Your task to perform on an android device: Check the weather Image 0: 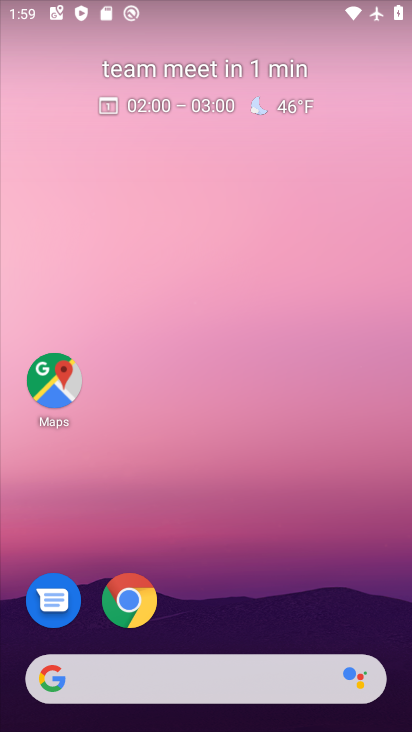
Step 0: drag from (177, 642) to (147, 115)
Your task to perform on an android device: Check the weather Image 1: 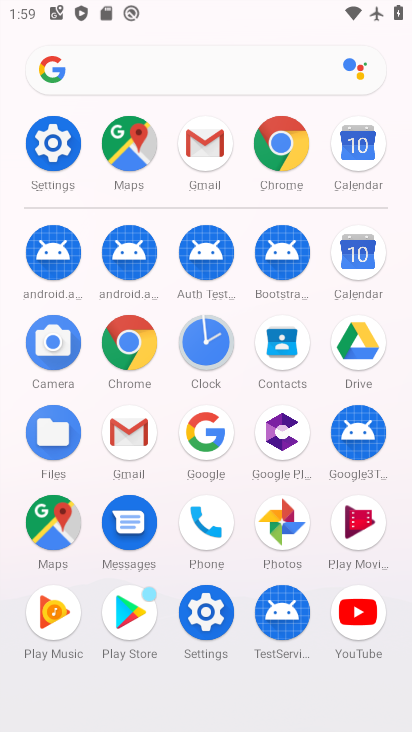
Step 1: click (213, 435)
Your task to perform on an android device: Check the weather Image 2: 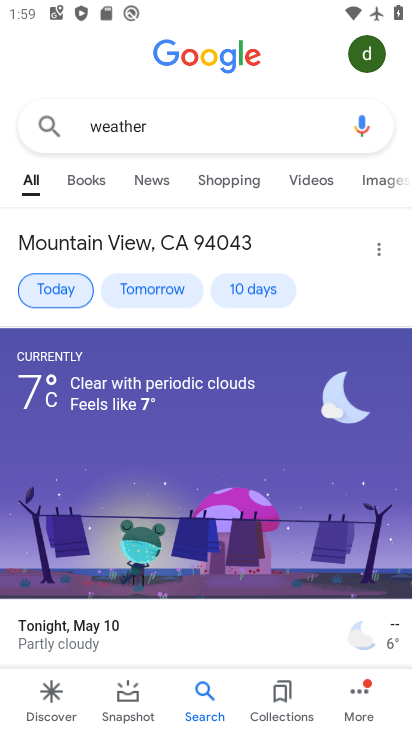
Step 2: task complete